Your task to perform on an android device: turn off javascript in the chrome app Image 0: 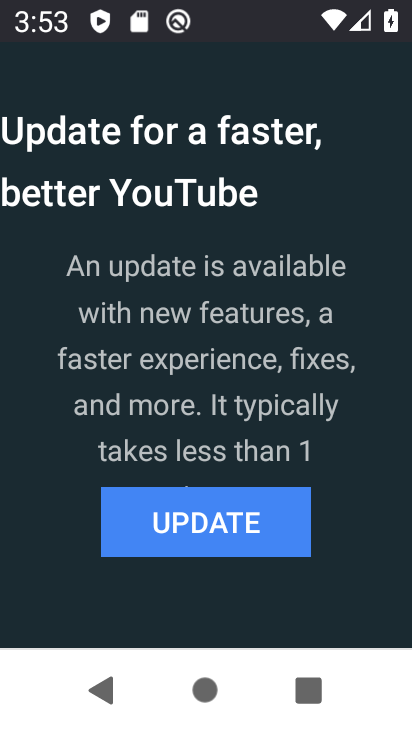
Step 0: press home button
Your task to perform on an android device: turn off javascript in the chrome app Image 1: 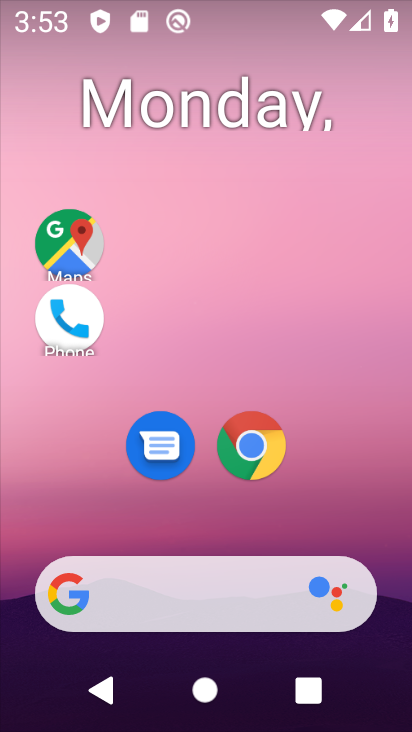
Step 1: click (255, 455)
Your task to perform on an android device: turn off javascript in the chrome app Image 2: 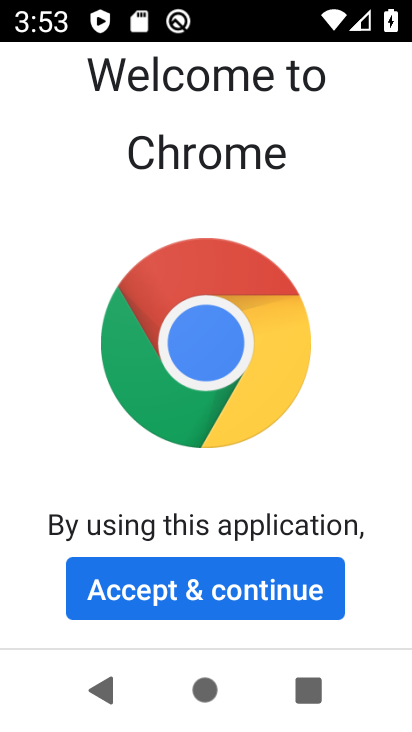
Step 2: click (245, 571)
Your task to perform on an android device: turn off javascript in the chrome app Image 3: 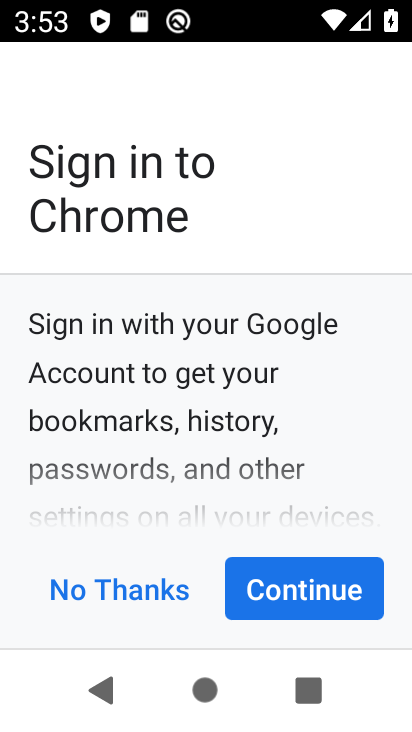
Step 3: click (284, 579)
Your task to perform on an android device: turn off javascript in the chrome app Image 4: 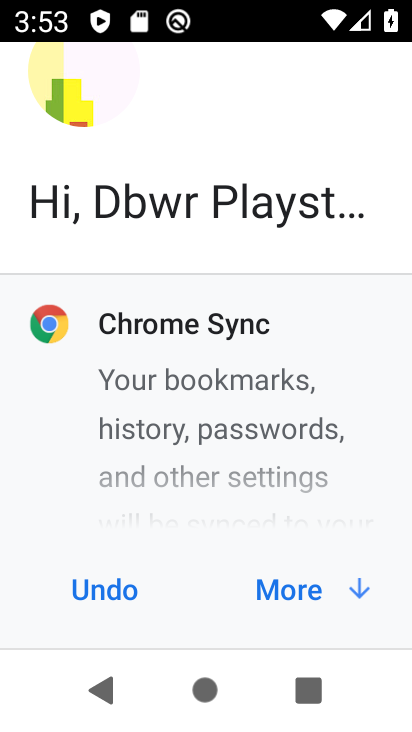
Step 4: click (284, 579)
Your task to perform on an android device: turn off javascript in the chrome app Image 5: 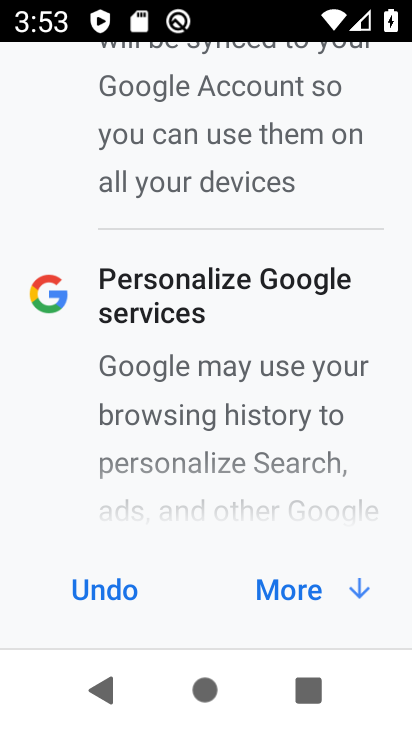
Step 5: click (284, 579)
Your task to perform on an android device: turn off javascript in the chrome app Image 6: 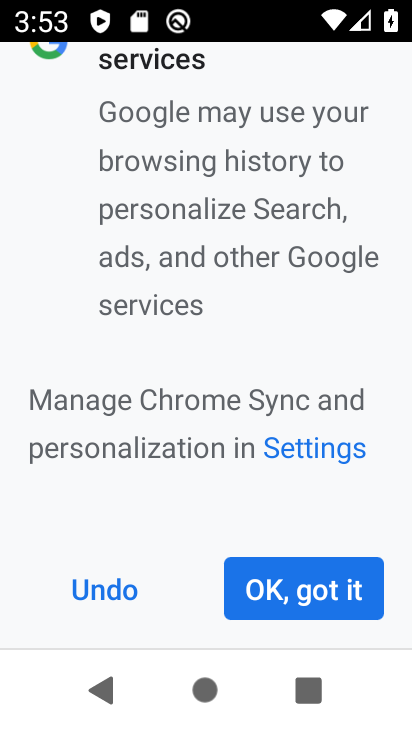
Step 6: click (284, 579)
Your task to perform on an android device: turn off javascript in the chrome app Image 7: 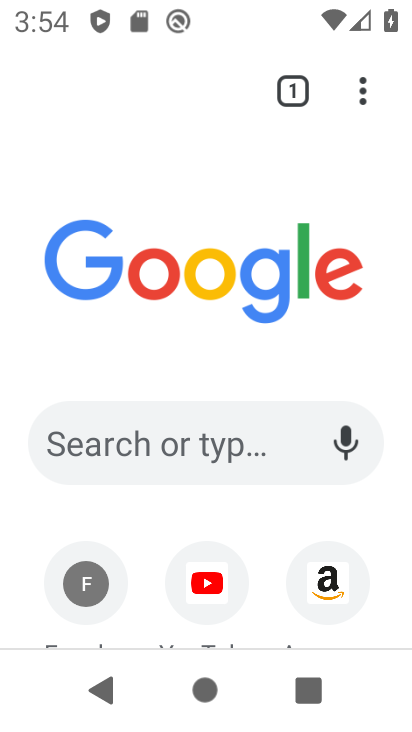
Step 7: click (364, 92)
Your task to perform on an android device: turn off javascript in the chrome app Image 8: 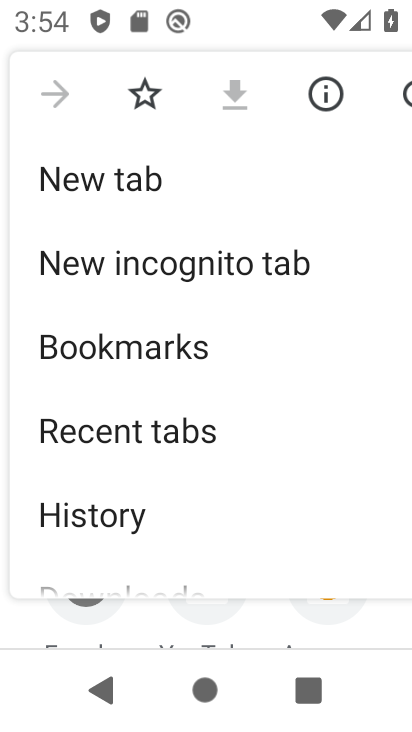
Step 8: drag from (243, 510) to (228, 155)
Your task to perform on an android device: turn off javascript in the chrome app Image 9: 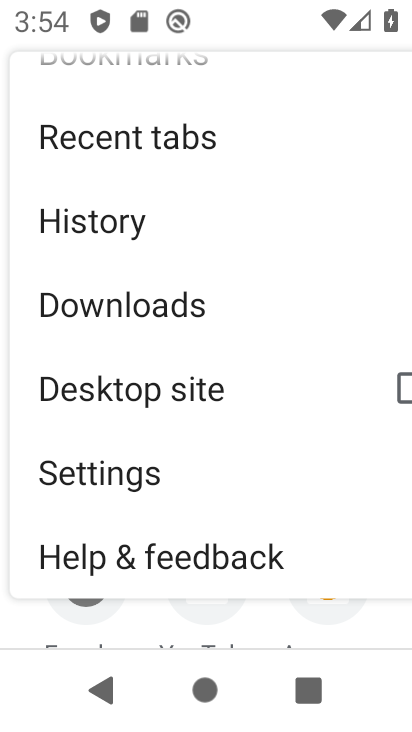
Step 9: click (152, 487)
Your task to perform on an android device: turn off javascript in the chrome app Image 10: 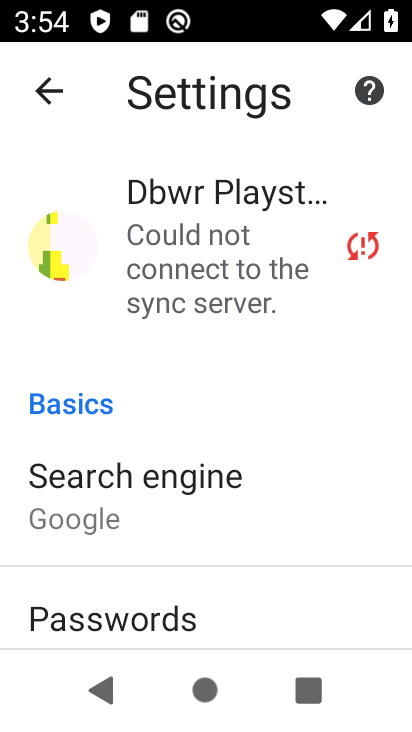
Step 10: drag from (245, 594) to (231, 189)
Your task to perform on an android device: turn off javascript in the chrome app Image 11: 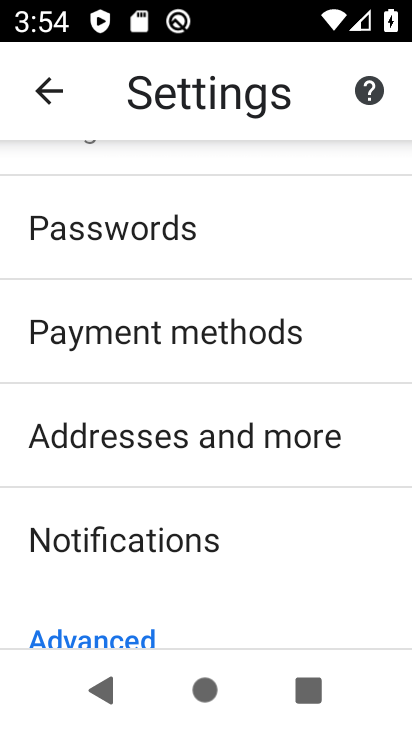
Step 11: drag from (233, 562) to (216, 177)
Your task to perform on an android device: turn off javascript in the chrome app Image 12: 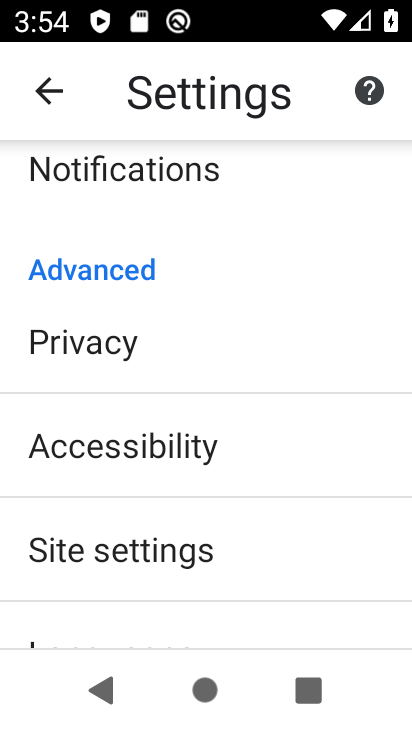
Step 12: click (177, 515)
Your task to perform on an android device: turn off javascript in the chrome app Image 13: 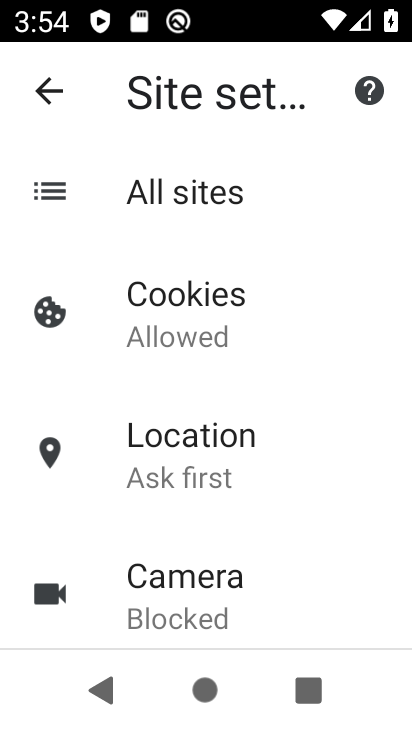
Step 13: drag from (232, 573) to (168, 216)
Your task to perform on an android device: turn off javascript in the chrome app Image 14: 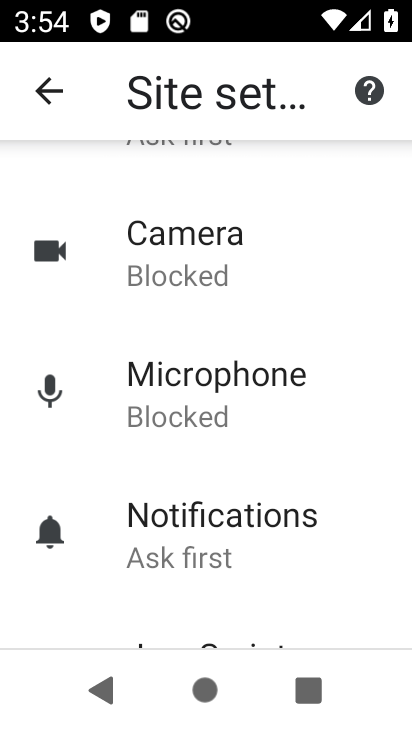
Step 14: drag from (249, 544) to (243, 176)
Your task to perform on an android device: turn off javascript in the chrome app Image 15: 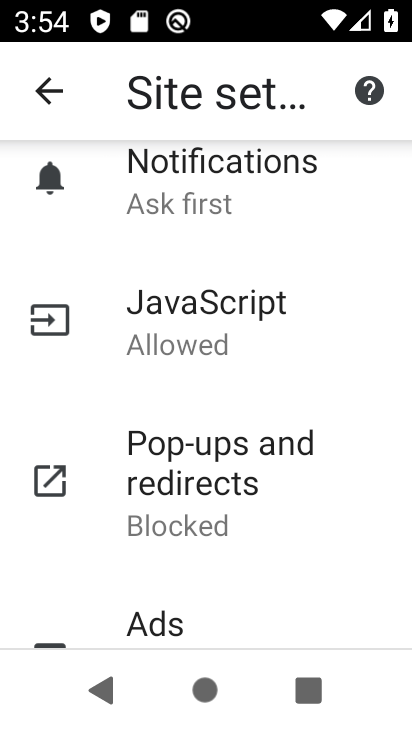
Step 15: click (243, 323)
Your task to perform on an android device: turn off javascript in the chrome app Image 16: 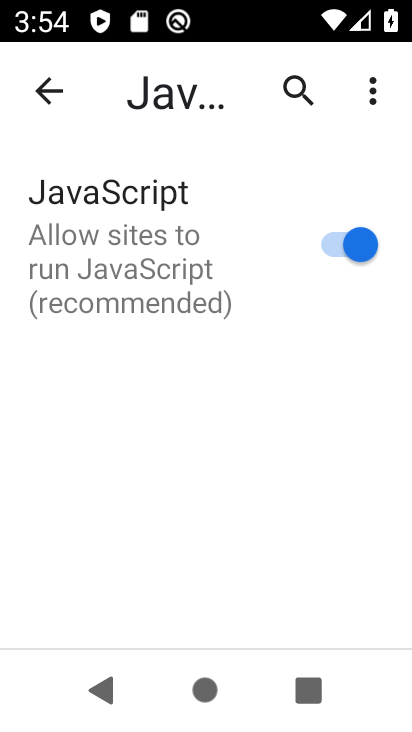
Step 16: click (345, 252)
Your task to perform on an android device: turn off javascript in the chrome app Image 17: 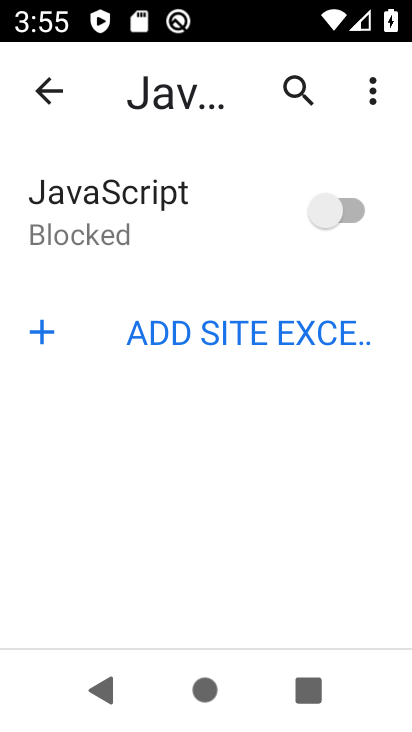
Step 17: task complete